Your task to perform on an android device: check battery use Image 0: 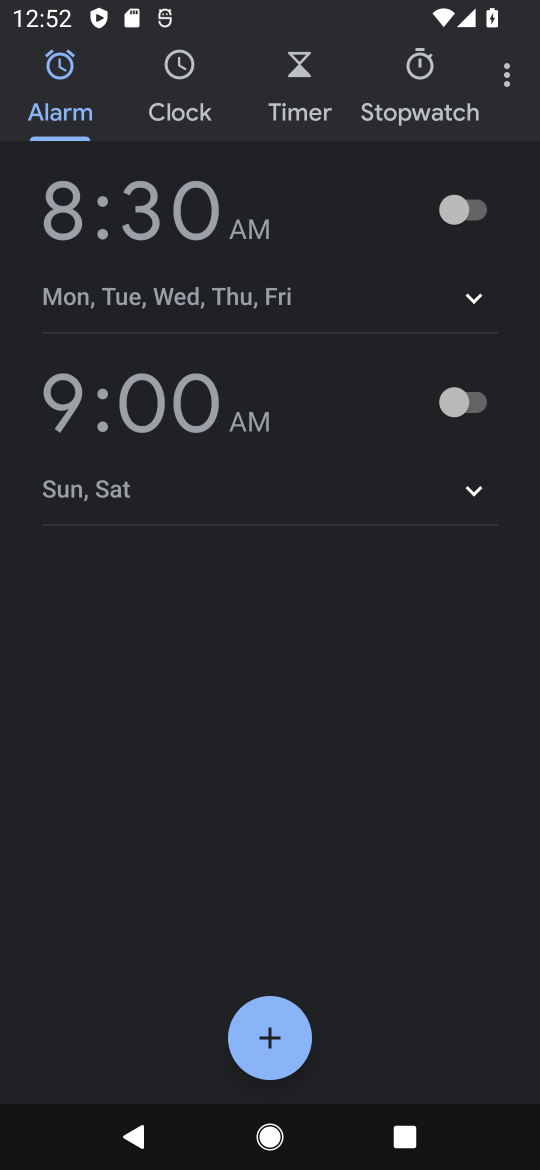
Step 0: press back button
Your task to perform on an android device: check battery use Image 1: 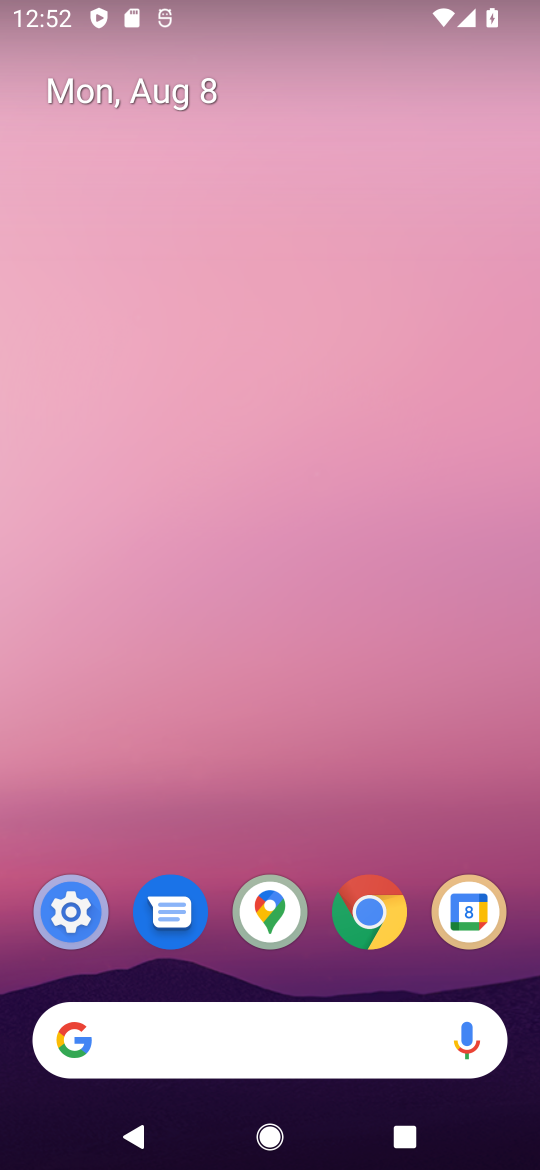
Step 1: click (67, 913)
Your task to perform on an android device: check battery use Image 2: 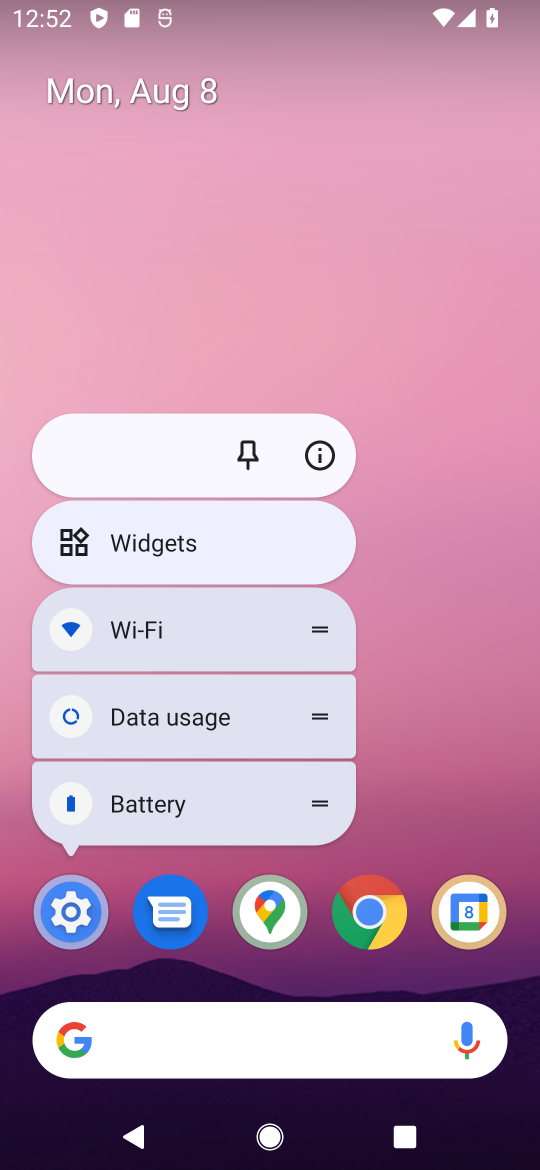
Step 2: click (67, 913)
Your task to perform on an android device: check battery use Image 3: 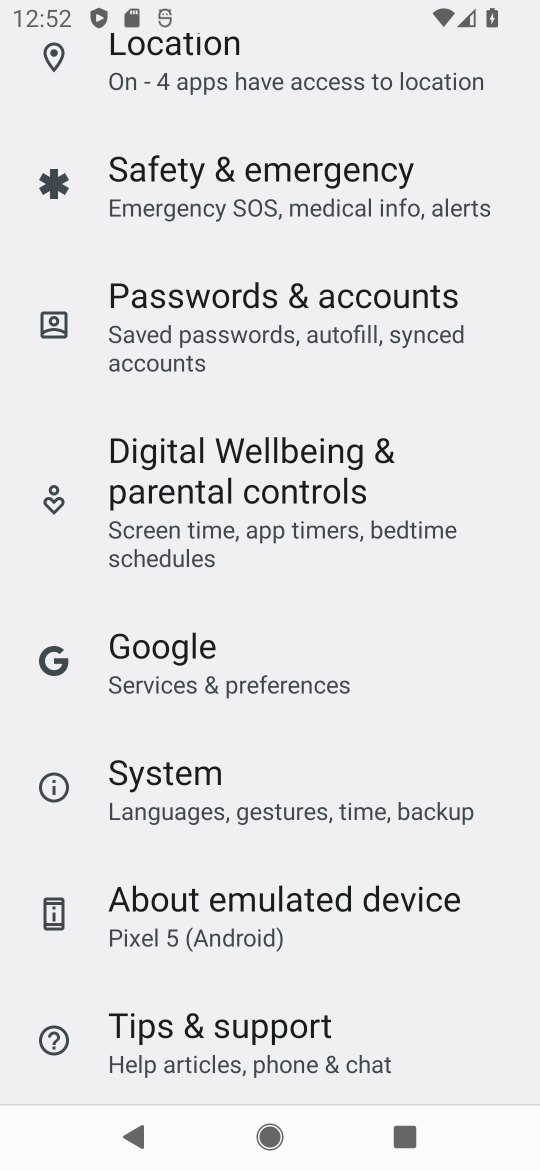
Step 3: press back button
Your task to perform on an android device: check battery use Image 4: 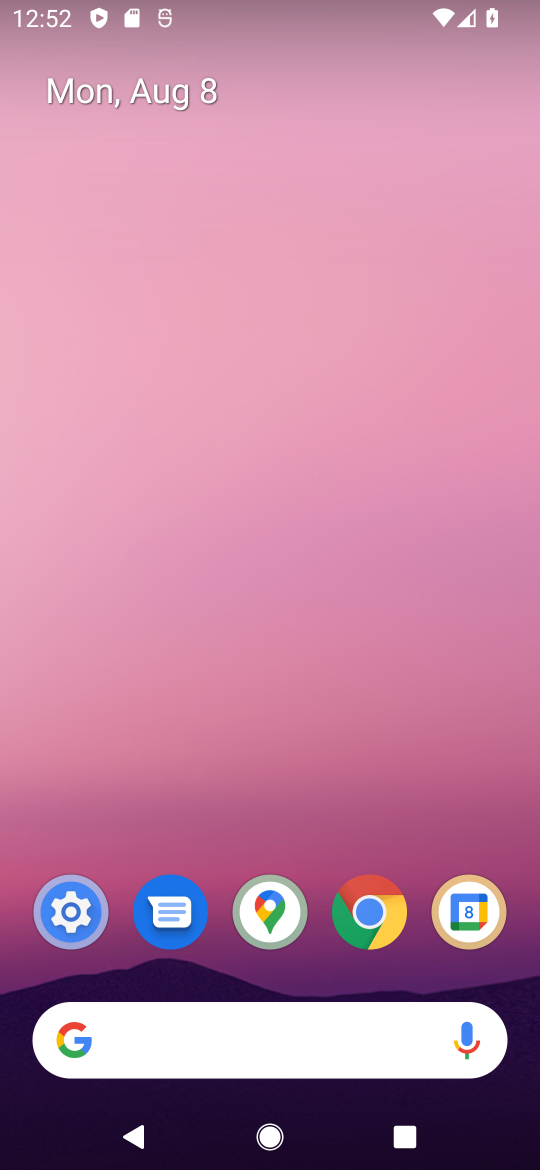
Step 4: click (58, 915)
Your task to perform on an android device: check battery use Image 5: 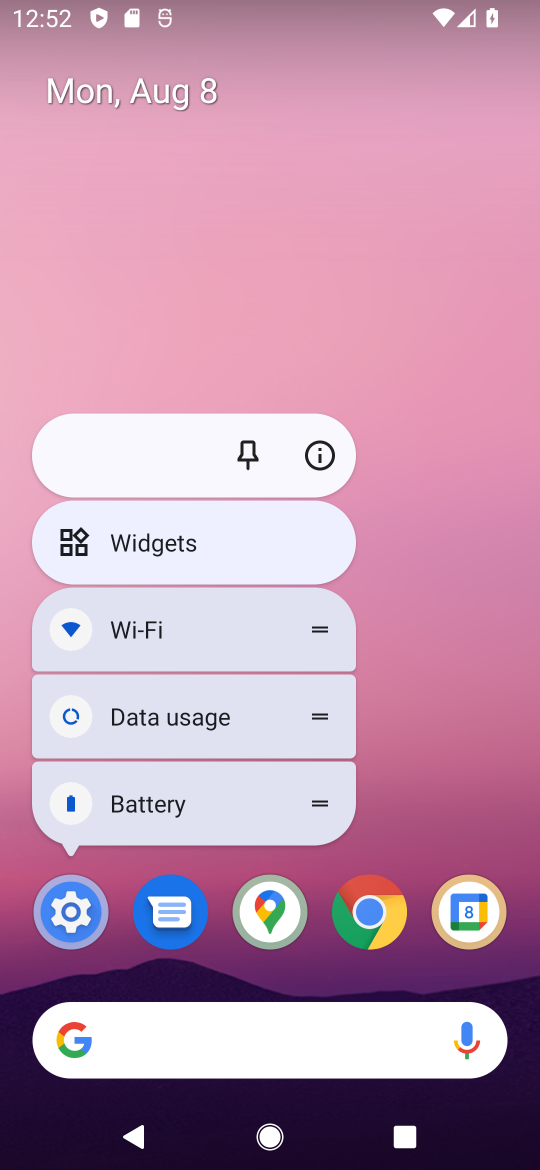
Step 5: click (76, 917)
Your task to perform on an android device: check battery use Image 6: 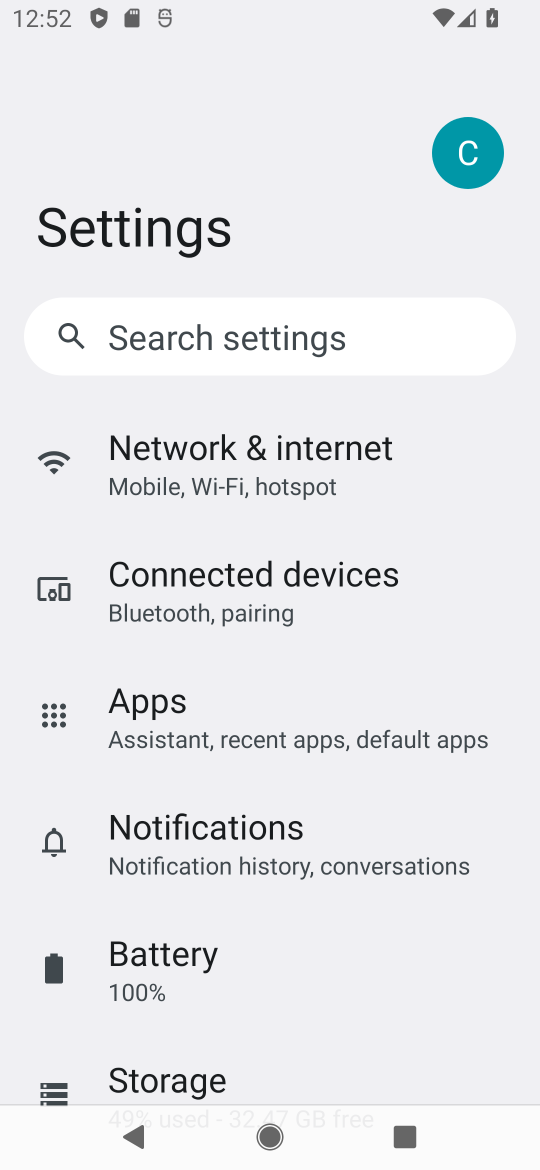
Step 6: click (214, 967)
Your task to perform on an android device: check battery use Image 7: 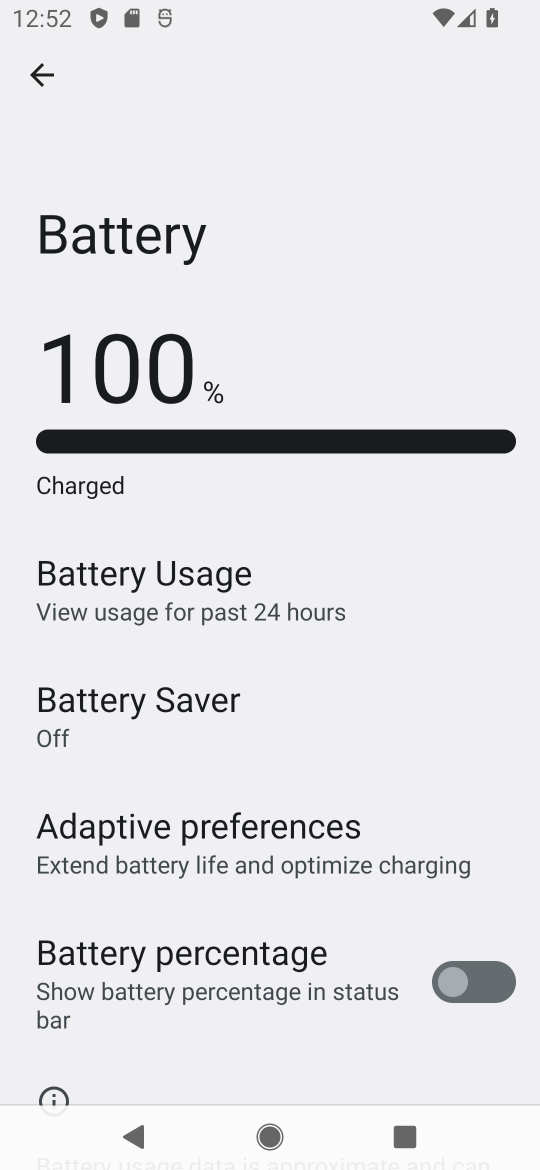
Step 7: drag from (231, 956) to (343, 513)
Your task to perform on an android device: check battery use Image 8: 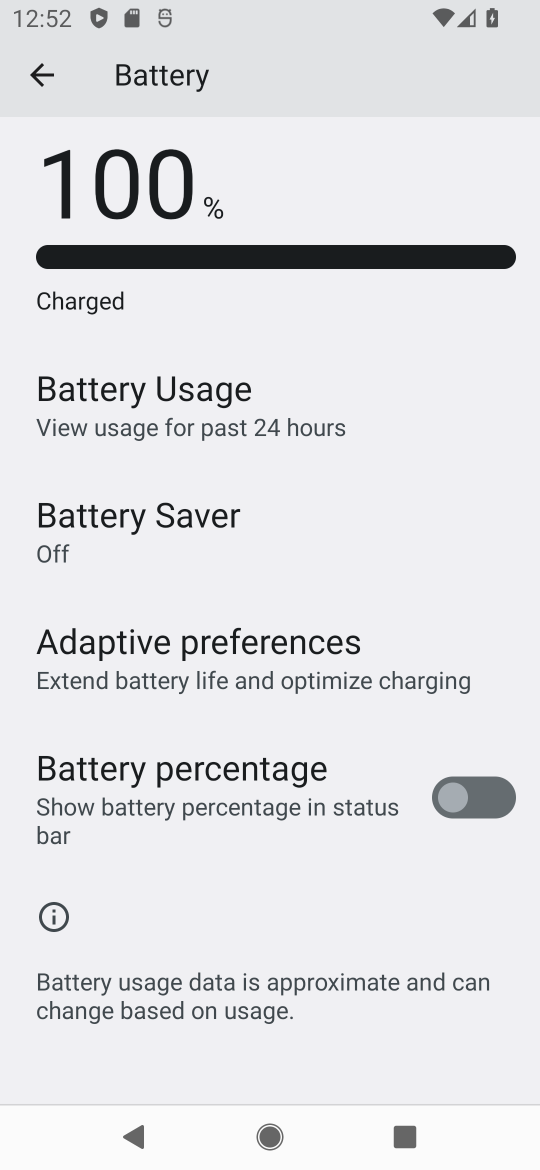
Step 8: click (203, 382)
Your task to perform on an android device: check battery use Image 9: 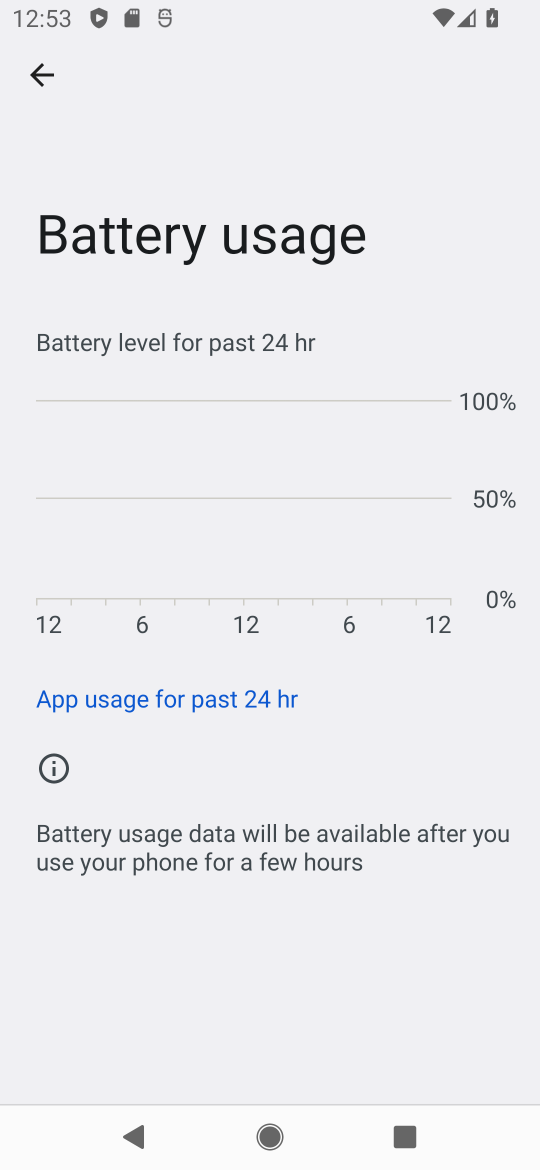
Step 9: task complete